Your task to perform on an android device: Check the news Image 0: 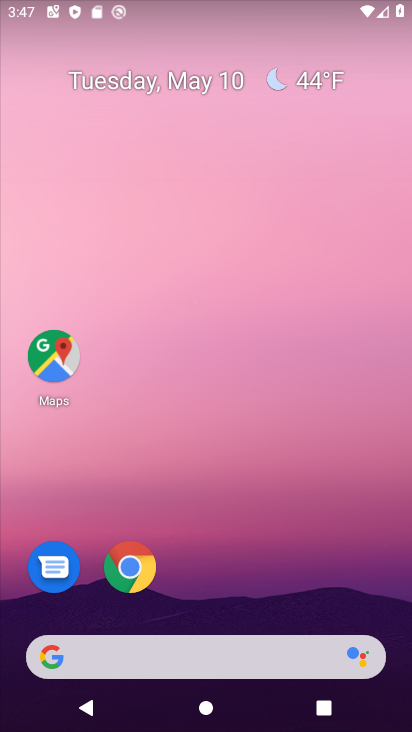
Step 0: drag from (217, 549) to (202, 19)
Your task to perform on an android device: Check the news Image 1: 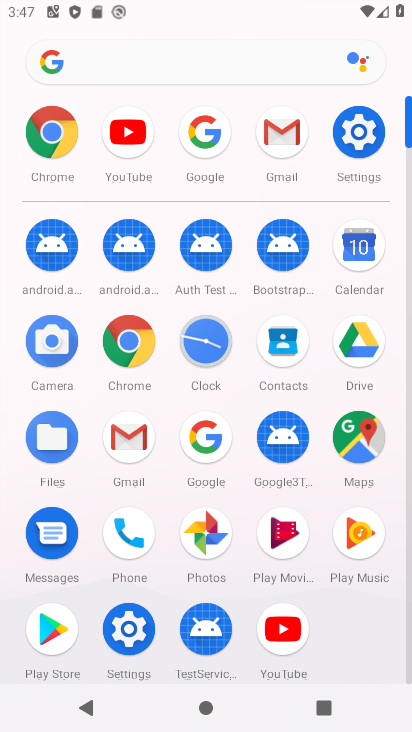
Step 1: click (201, 128)
Your task to perform on an android device: Check the news Image 2: 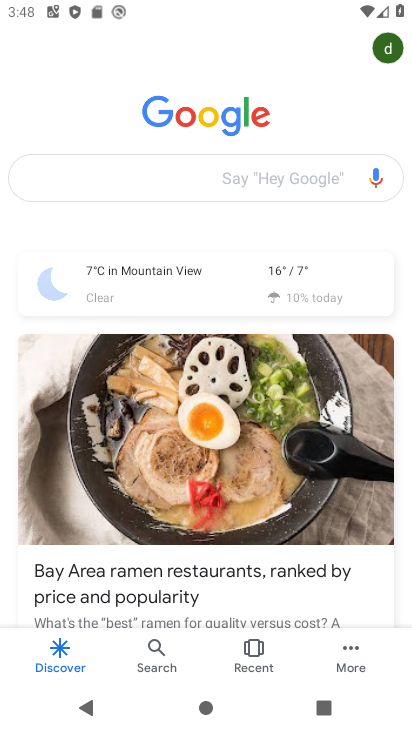
Step 2: click (192, 194)
Your task to perform on an android device: Check the news Image 3: 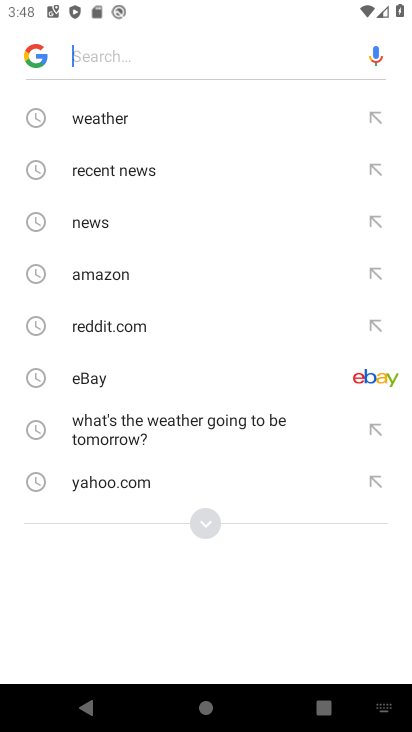
Step 3: click (99, 226)
Your task to perform on an android device: Check the news Image 4: 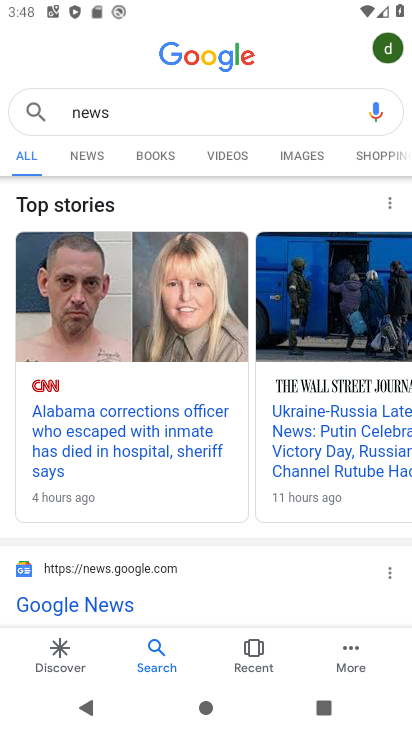
Step 4: drag from (357, 449) to (262, 430)
Your task to perform on an android device: Check the news Image 5: 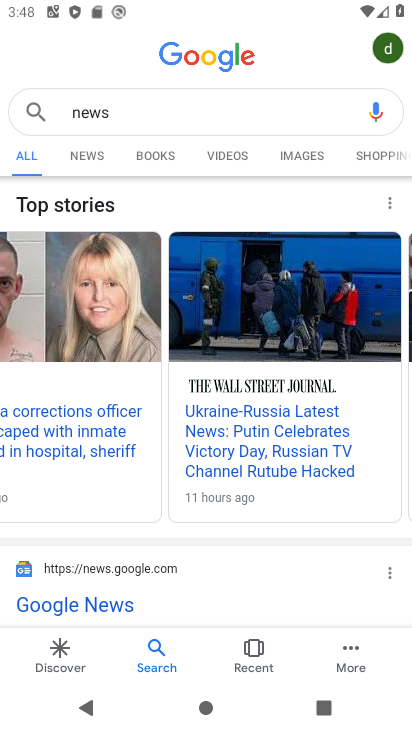
Step 5: click (54, 437)
Your task to perform on an android device: Check the news Image 6: 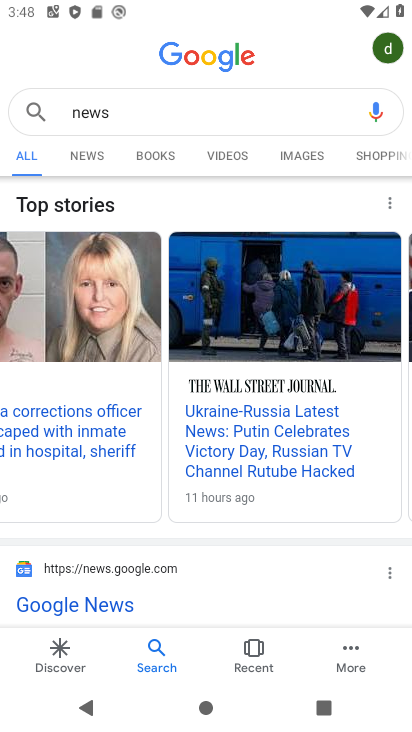
Step 6: task complete